Your task to perform on an android device: Open the phone app and click the voicemail tab. Image 0: 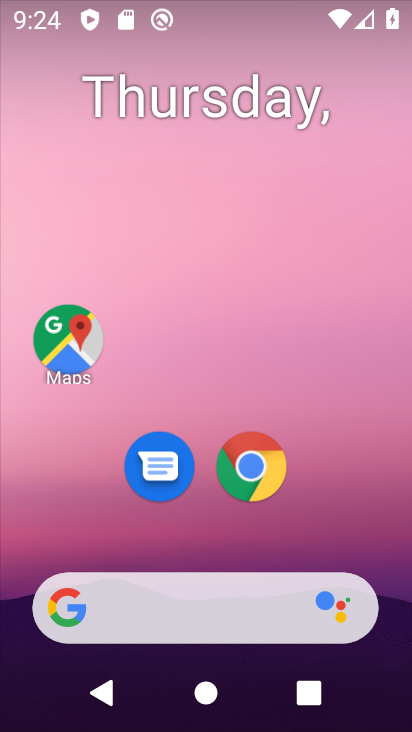
Step 0: drag from (380, 505) to (386, 170)
Your task to perform on an android device: Open the phone app and click the voicemail tab. Image 1: 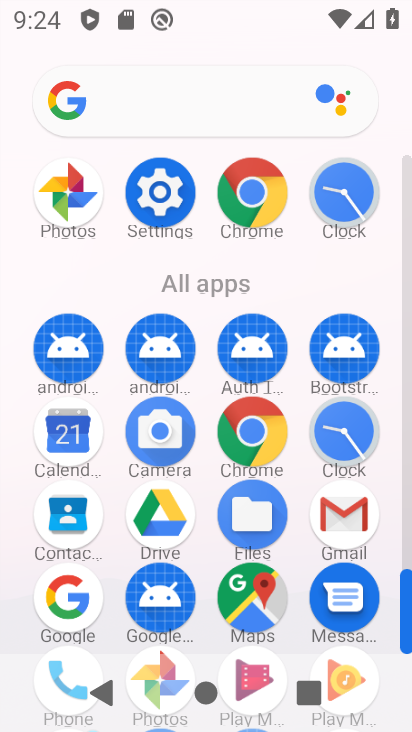
Step 1: drag from (383, 560) to (399, 297)
Your task to perform on an android device: Open the phone app and click the voicemail tab. Image 2: 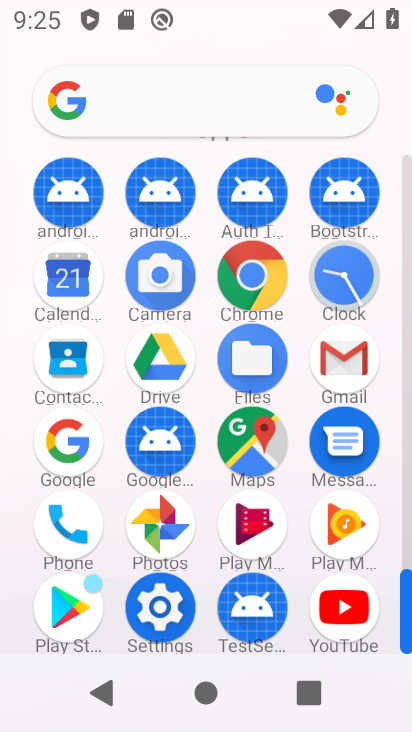
Step 2: click (95, 522)
Your task to perform on an android device: Open the phone app and click the voicemail tab. Image 3: 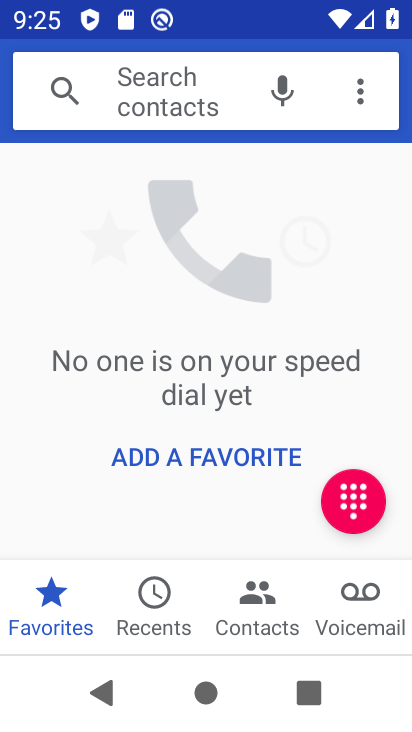
Step 3: click (359, 588)
Your task to perform on an android device: Open the phone app and click the voicemail tab. Image 4: 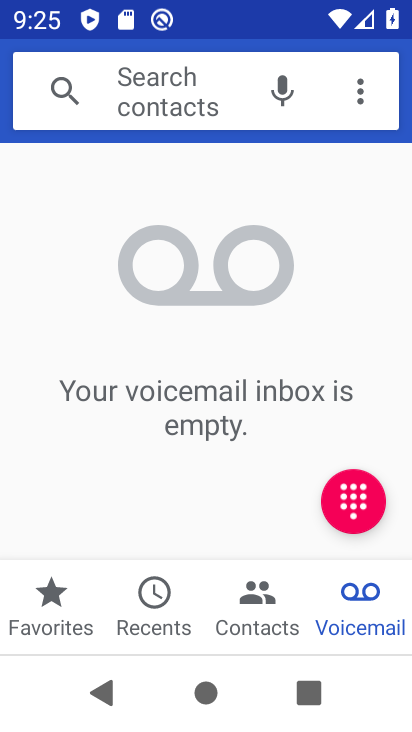
Step 4: task complete